Your task to perform on an android device: Go to Amazon Image 0: 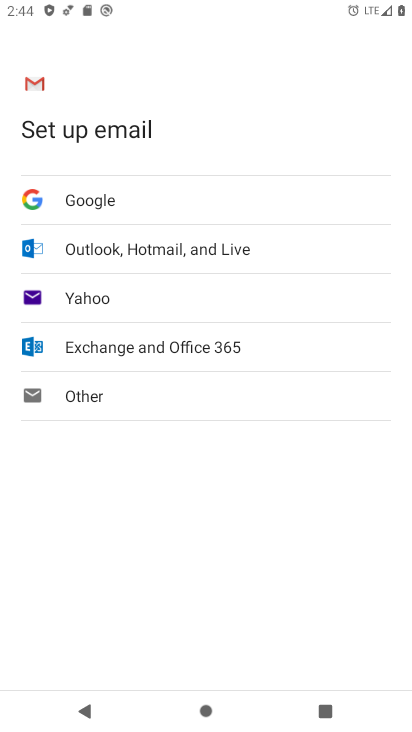
Step 0: press back button
Your task to perform on an android device: Go to Amazon Image 1: 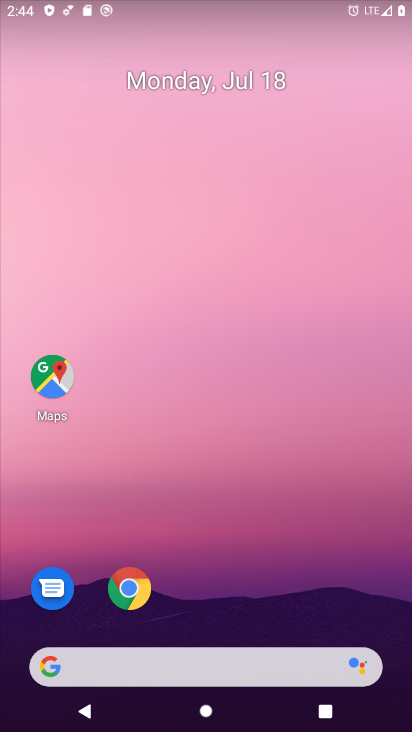
Step 1: click (103, 571)
Your task to perform on an android device: Go to Amazon Image 2: 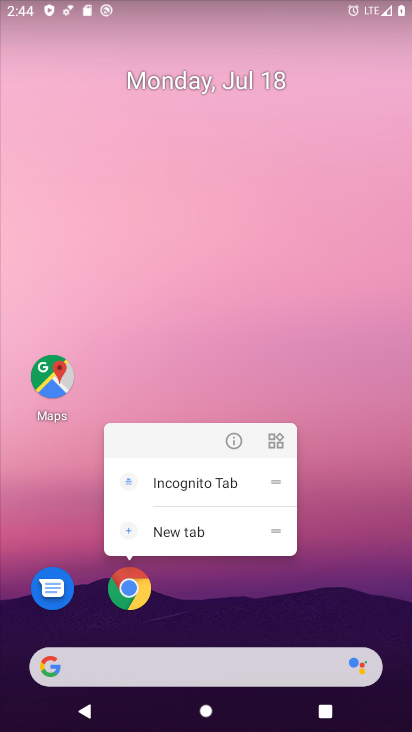
Step 2: click (128, 592)
Your task to perform on an android device: Go to Amazon Image 3: 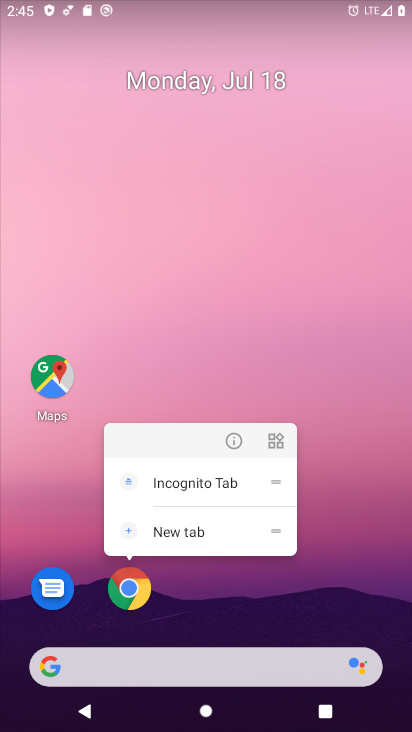
Step 3: click (131, 598)
Your task to perform on an android device: Go to Amazon Image 4: 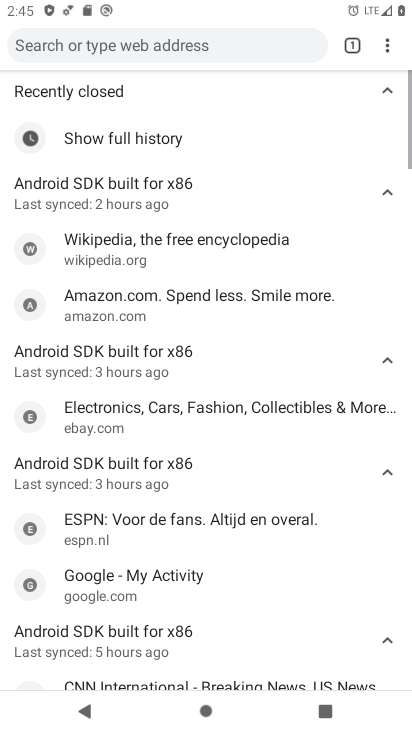
Step 4: click (340, 40)
Your task to perform on an android device: Go to Amazon Image 5: 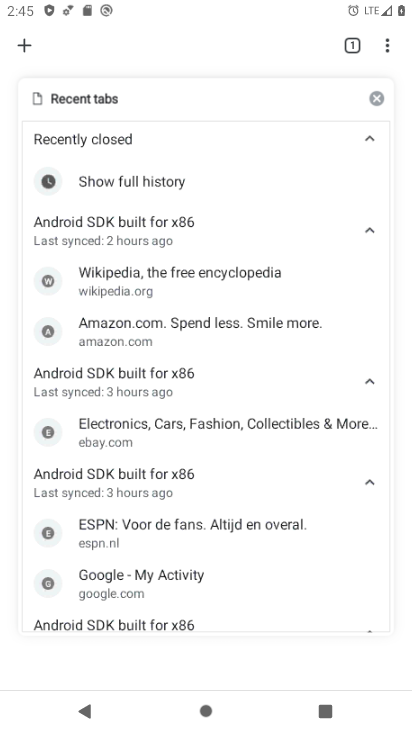
Step 5: click (18, 50)
Your task to perform on an android device: Go to Amazon Image 6: 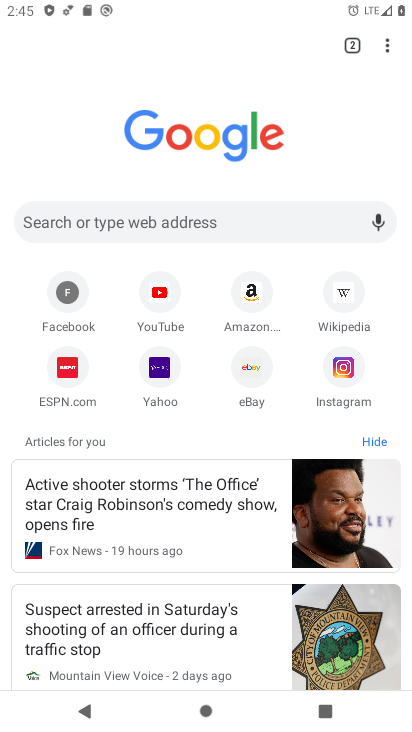
Step 6: click (239, 297)
Your task to perform on an android device: Go to Amazon Image 7: 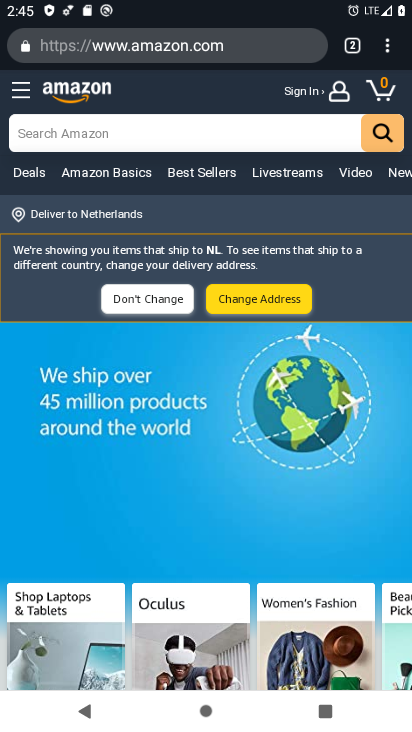
Step 7: task complete